Your task to perform on an android device: turn off improve location accuracy Image 0: 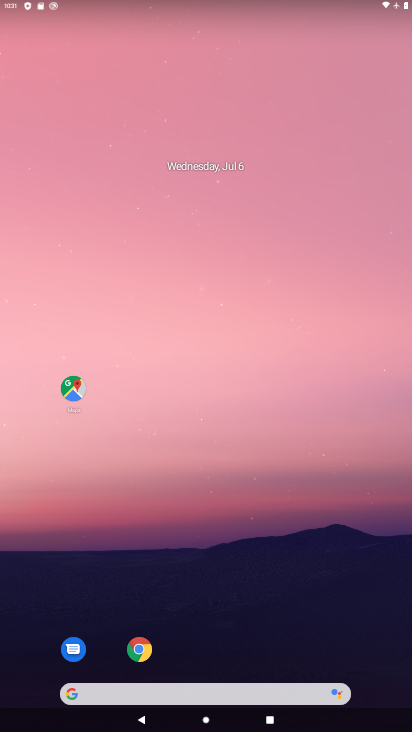
Step 0: drag from (383, 677) to (365, 52)
Your task to perform on an android device: turn off improve location accuracy Image 1: 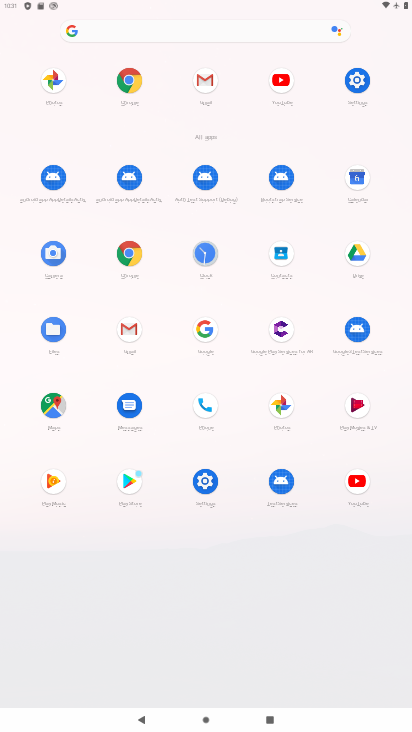
Step 1: click (350, 84)
Your task to perform on an android device: turn off improve location accuracy Image 2: 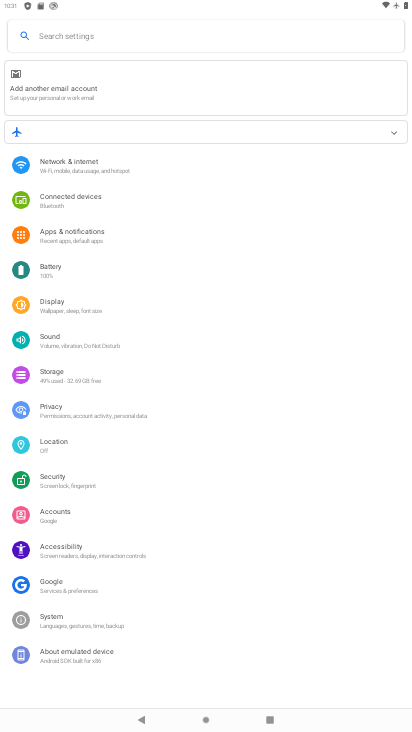
Step 2: click (42, 436)
Your task to perform on an android device: turn off improve location accuracy Image 3: 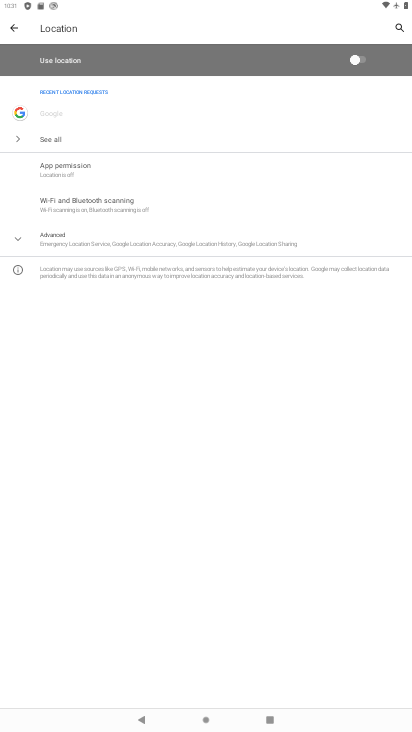
Step 3: click (17, 238)
Your task to perform on an android device: turn off improve location accuracy Image 4: 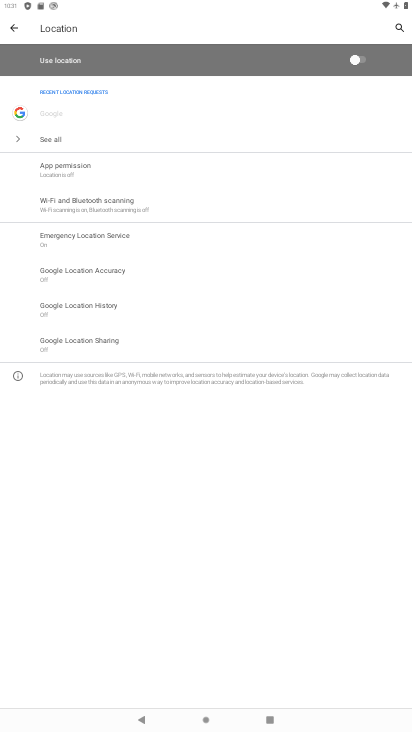
Step 4: click (60, 268)
Your task to perform on an android device: turn off improve location accuracy Image 5: 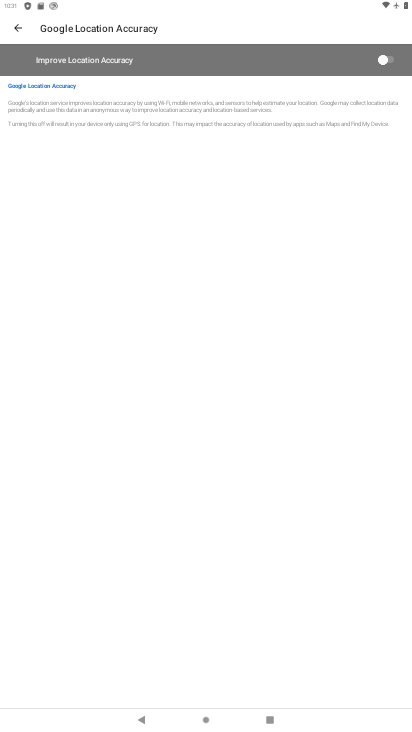
Step 5: task complete